Your task to perform on an android device: set the stopwatch Image 0: 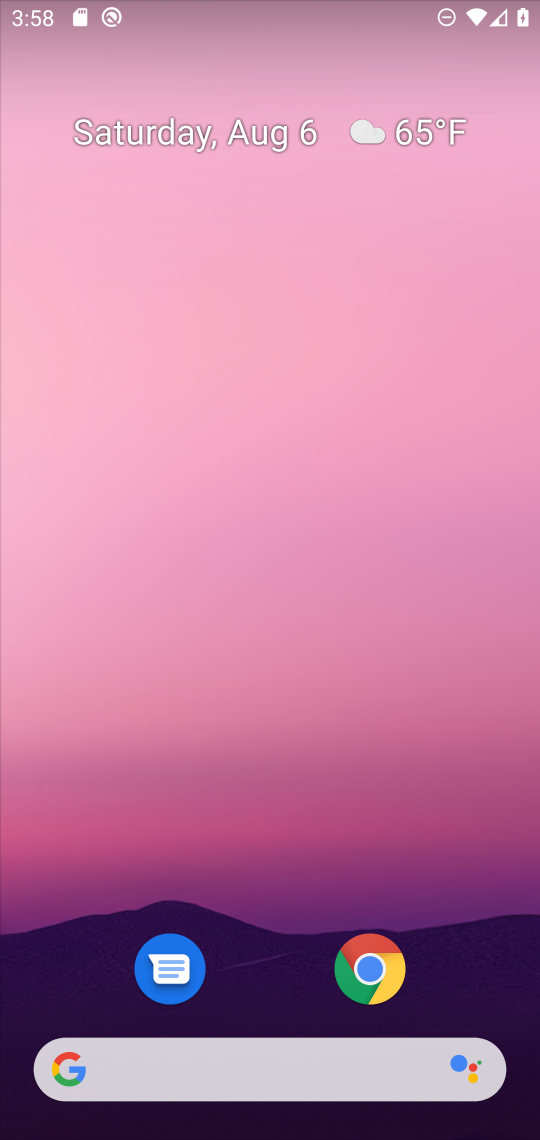
Step 0: press home button
Your task to perform on an android device: set the stopwatch Image 1: 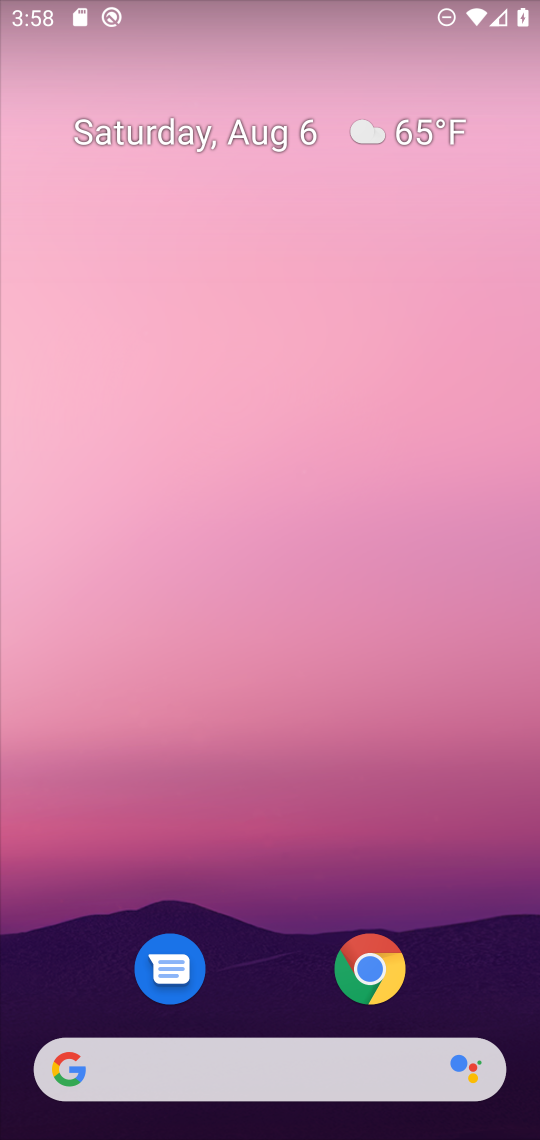
Step 1: drag from (282, 884) to (282, 49)
Your task to perform on an android device: set the stopwatch Image 2: 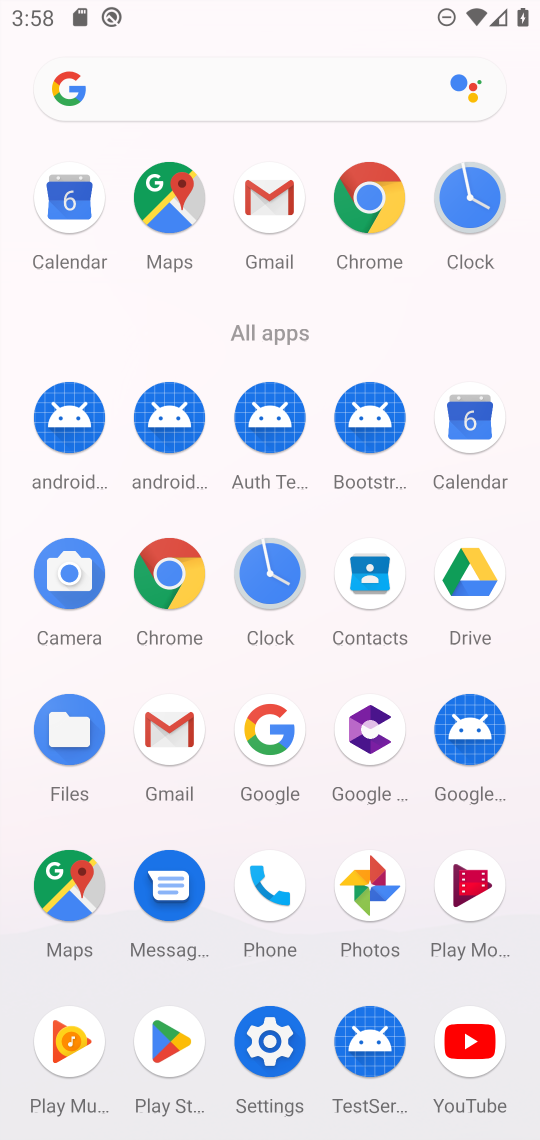
Step 2: click (254, 566)
Your task to perform on an android device: set the stopwatch Image 3: 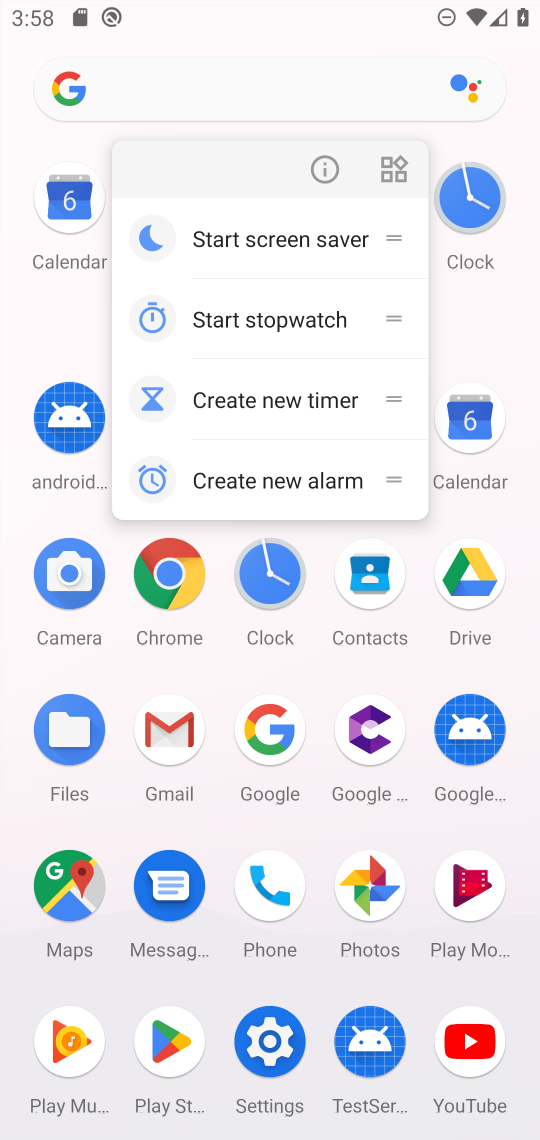
Step 3: click (262, 585)
Your task to perform on an android device: set the stopwatch Image 4: 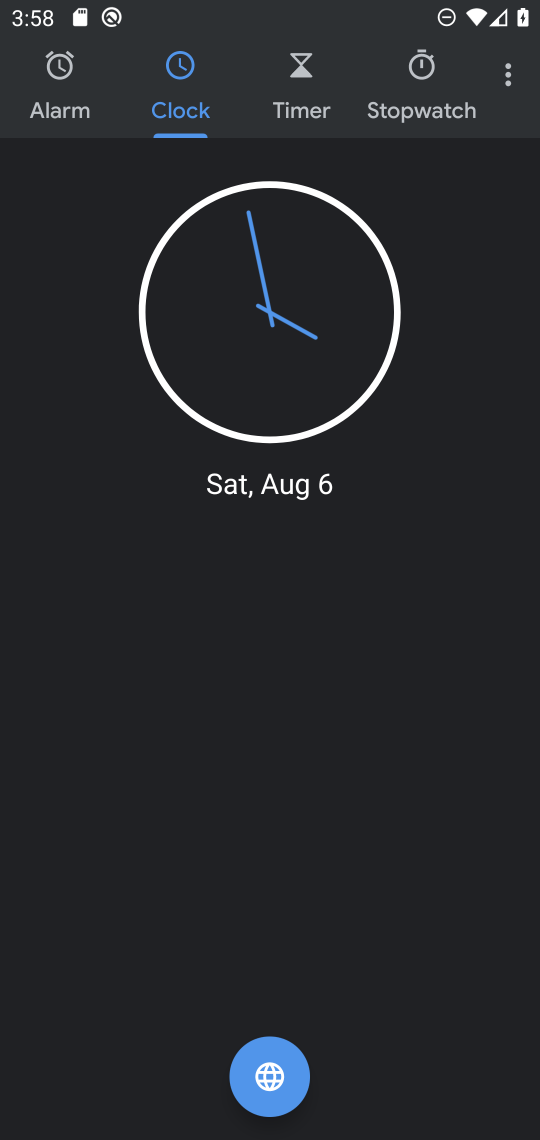
Step 4: click (415, 73)
Your task to perform on an android device: set the stopwatch Image 5: 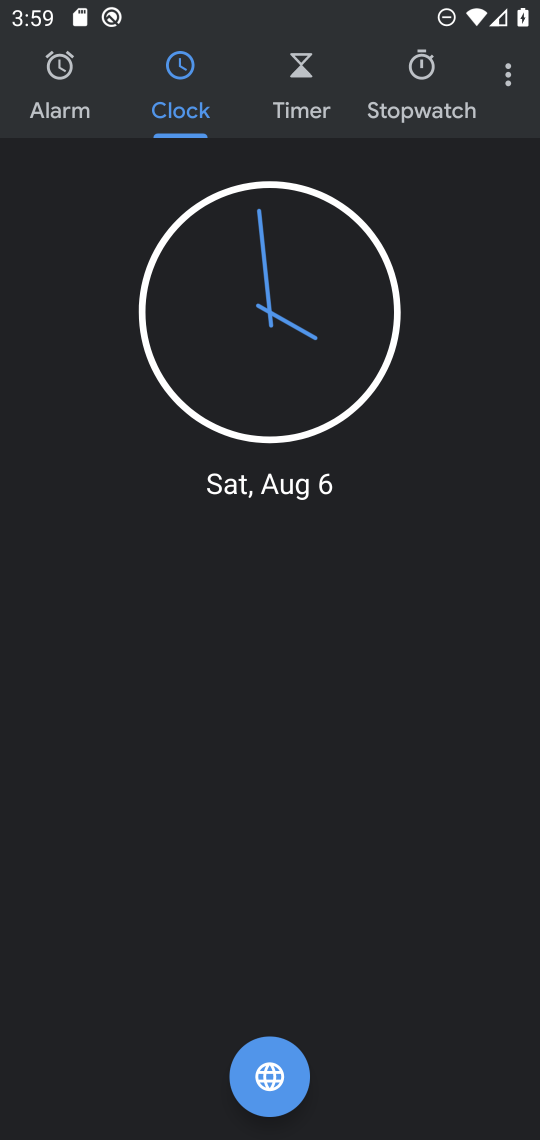
Step 5: click (418, 73)
Your task to perform on an android device: set the stopwatch Image 6: 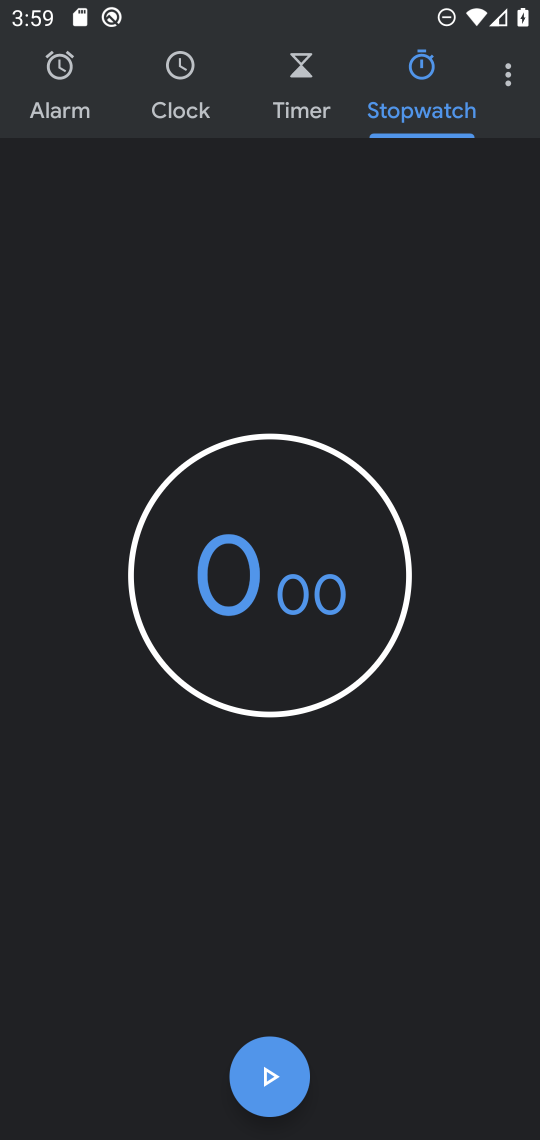
Step 6: click (264, 1051)
Your task to perform on an android device: set the stopwatch Image 7: 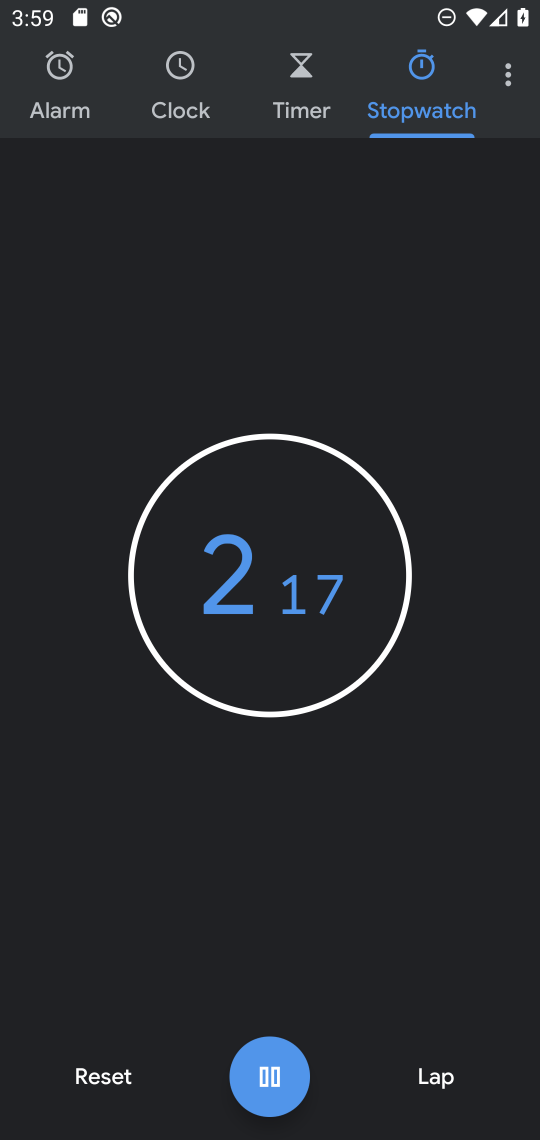
Step 7: click (279, 1079)
Your task to perform on an android device: set the stopwatch Image 8: 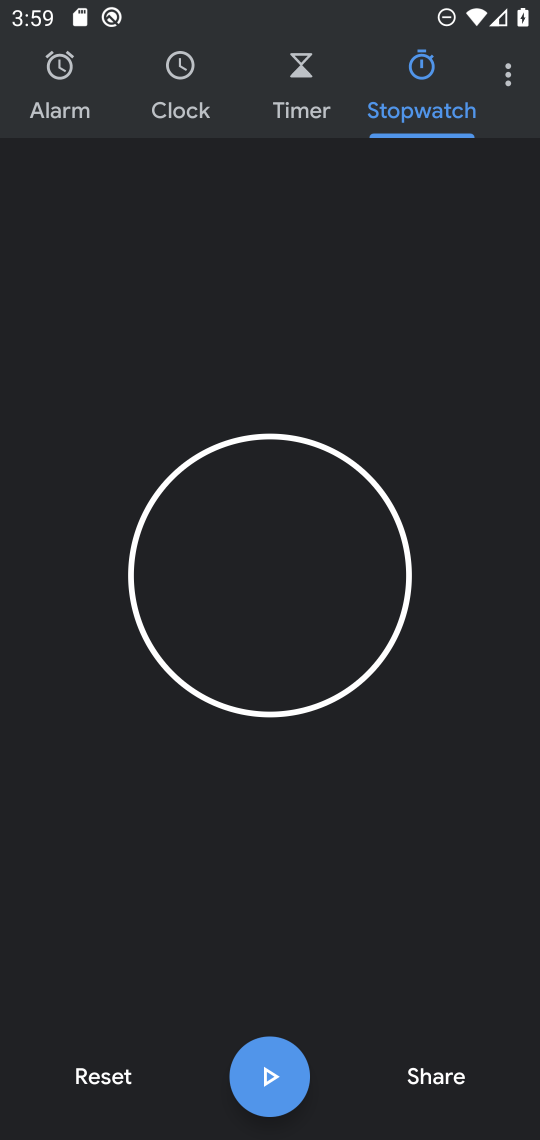
Step 8: task complete